Your task to perform on an android device: Open Google Chrome and click the shortcut for Amazon.com Image 0: 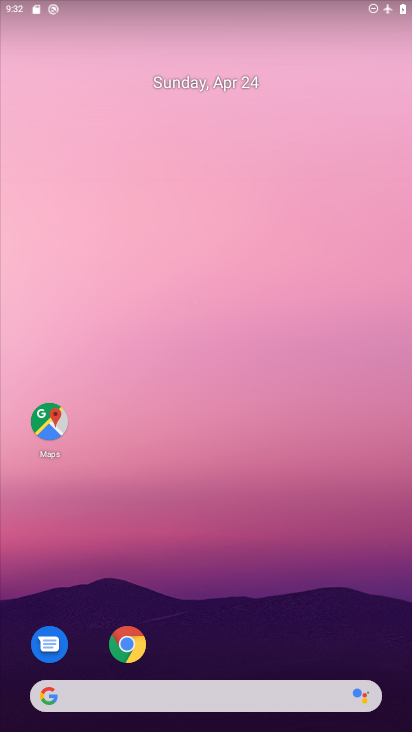
Step 0: drag from (193, 669) to (274, 14)
Your task to perform on an android device: Open Google Chrome and click the shortcut for Amazon.com Image 1: 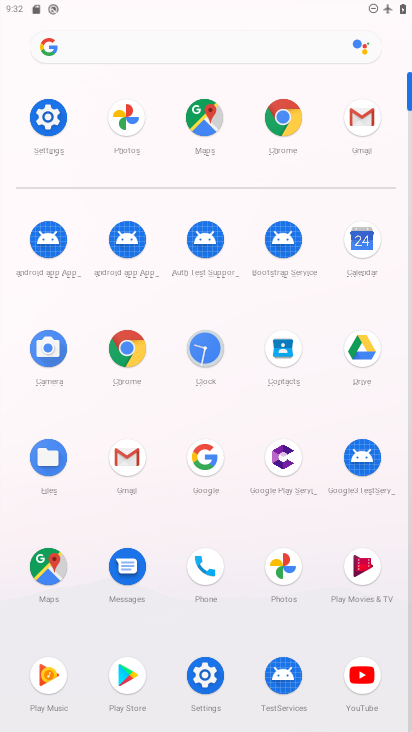
Step 1: click (129, 350)
Your task to perform on an android device: Open Google Chrome and click the shortcut for Amazon.com Image 2: 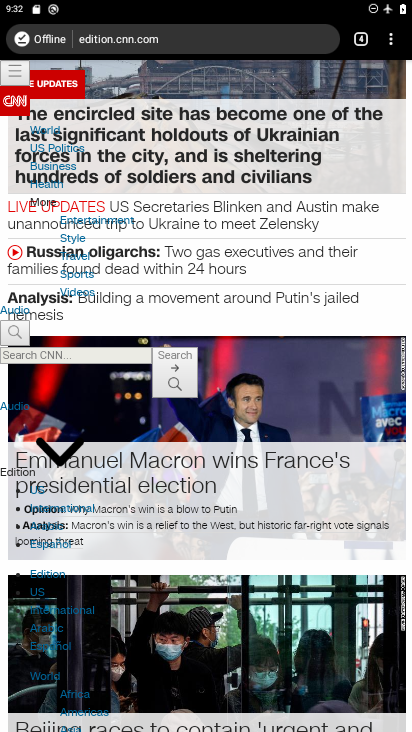
Step 2: click (352, 39)
Your task to perform on an android device: Open Google Chrome and click the shortcut for Amazon.com Image 3: 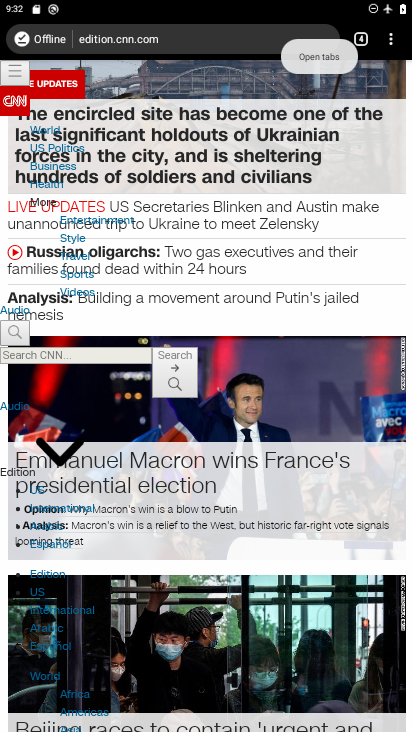
Step 3: click (356, 41)
Your task to perform on an android device: Open Google Chrome and click the shortcut for Amazon.com Image 4: 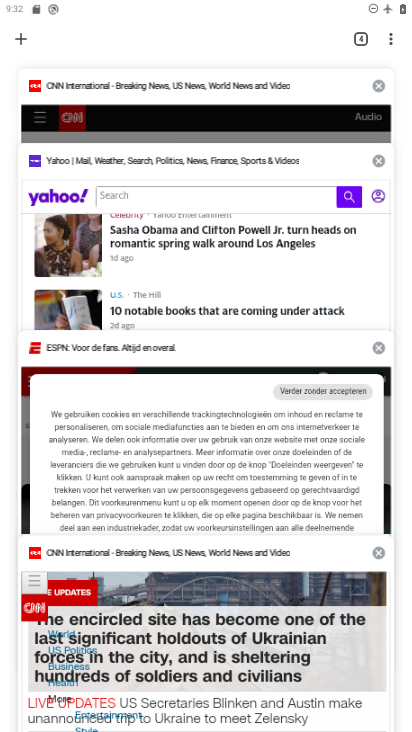
Step 4: click (18, 41)
Your task to perform on an android device: Open Google Chrome and click the shortcut for Amazon.com Image 5: 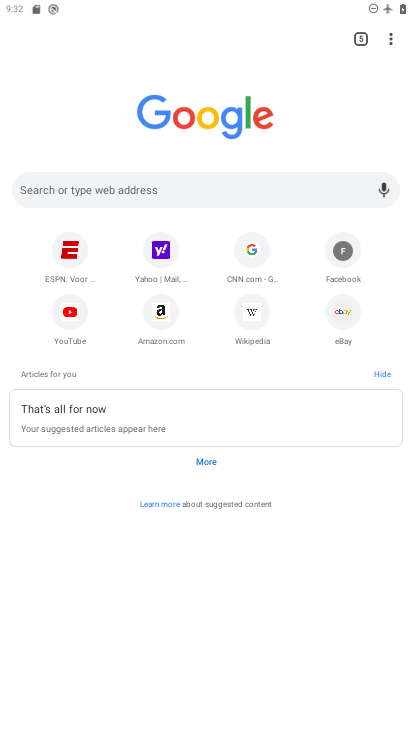
Step 5: click (124, 308)
Your task to perform on an android device: Open Google Chrome and click the shortcut for Amazon.com Image 6: 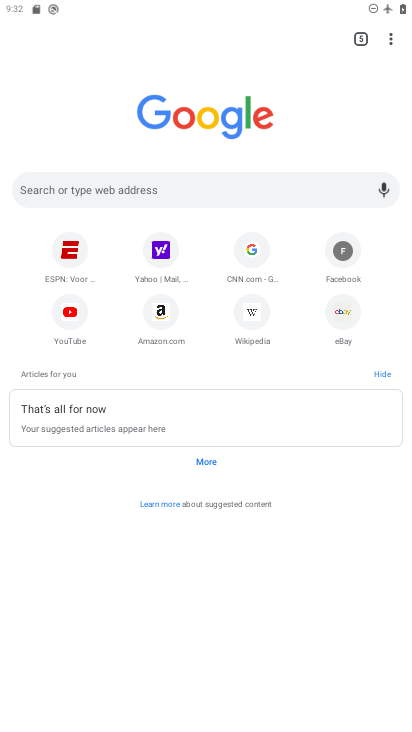
Step 6: click (155, 311)
Your task to perform on an android device: Open Google Chrome and click the shortcut for Amazon.com Image 7: 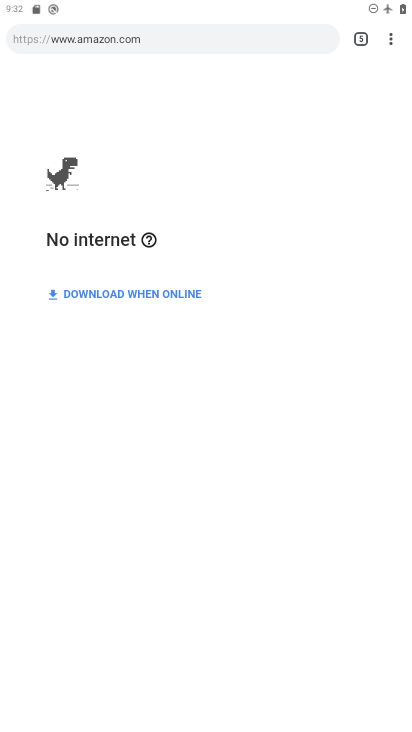
Step 7: task complete